Your task to perform on an android device: change notifications settings Image 0: 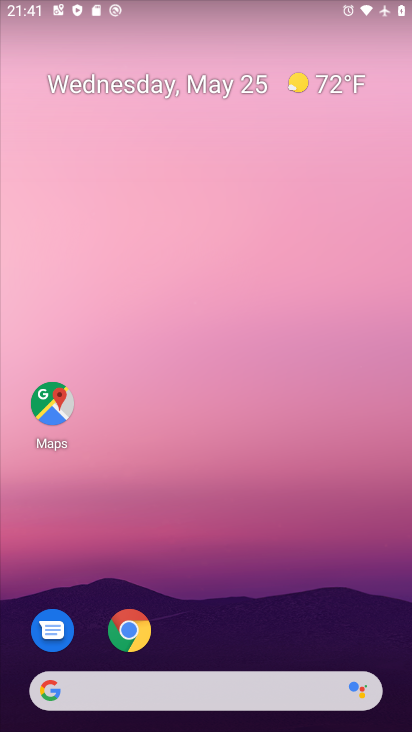
Step 0: drag from (224, 639) to (217, 270)
Your task to perform on an android device: change notifications settings Image 1: 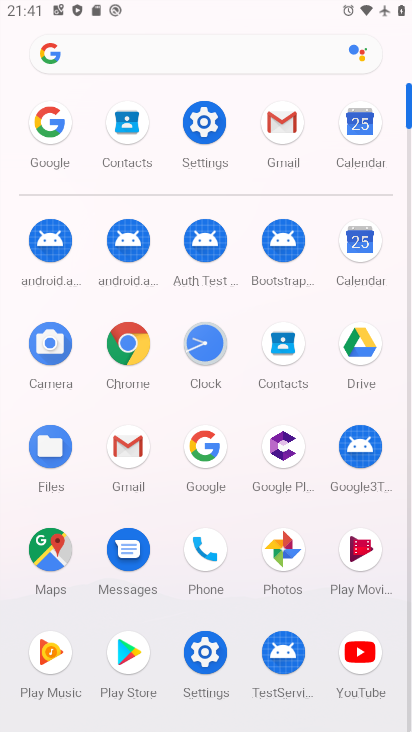
Step 1: click (204, 129)
Your task to perform on an android device: change notifications settings Image 2: 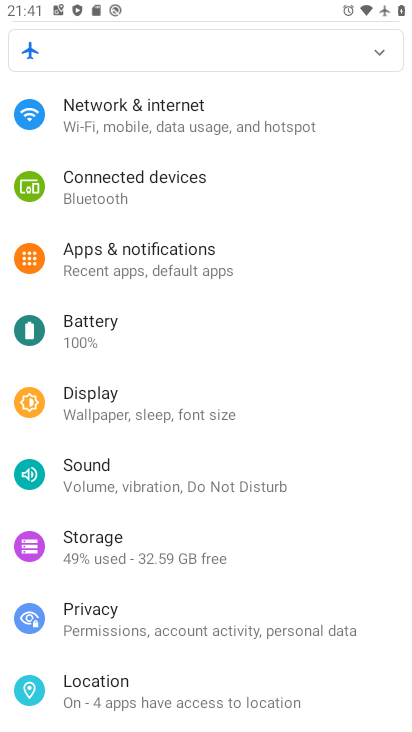
Step 2: click (193, 268)
Your task to perform on an android device: change notifications settings Image 3: 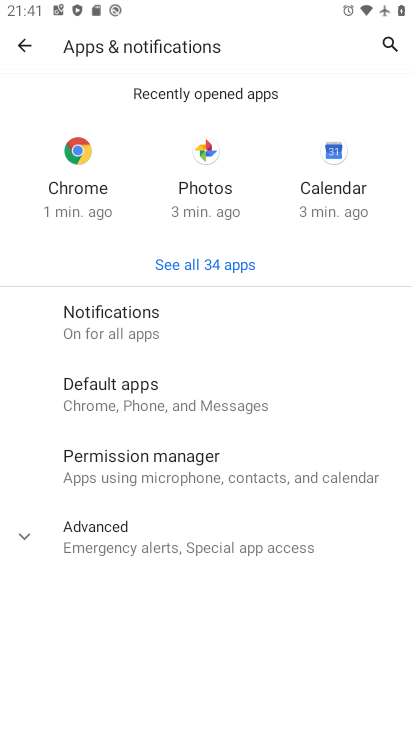
Step 3: click (174, 317)
Your task to perform on an android device: change notifications settings Image 4: 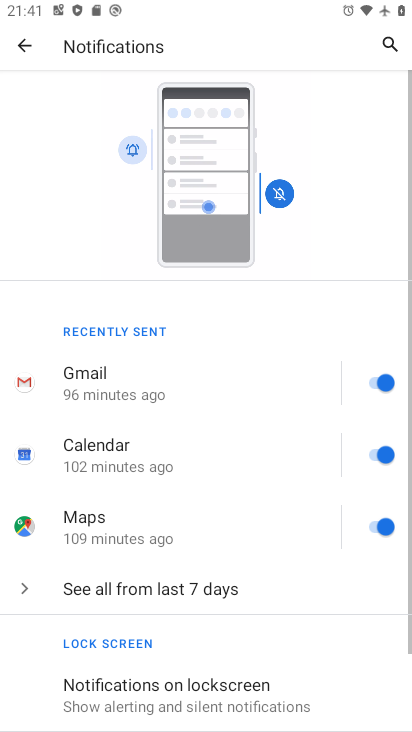
Step 4: drag from (217, 596) to (252, 256)
Your task to perform on an android device: change notifications settings Image 5: 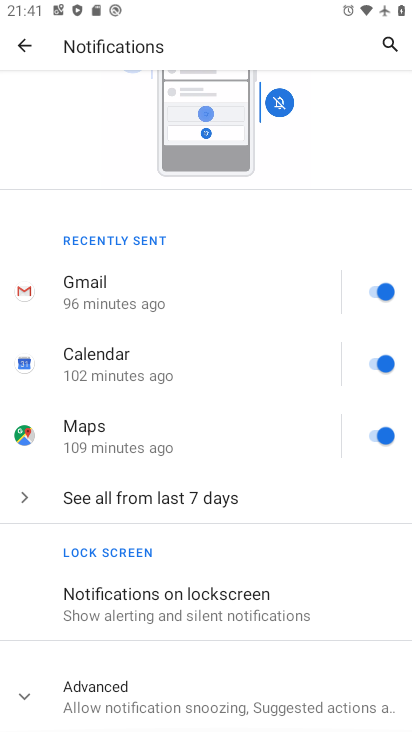
Step 5: click (234, 594)
Your task to perform on an android device: change notifications settings Image 6: 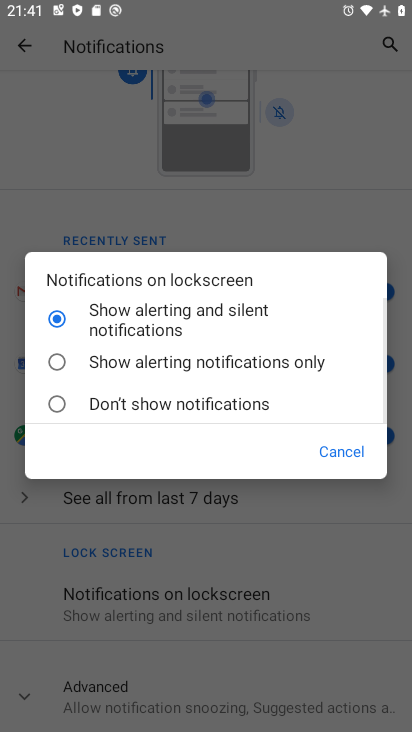
Step 6: click (152, 407)
Your task to perform on an android device: change notifications settings Image 7: 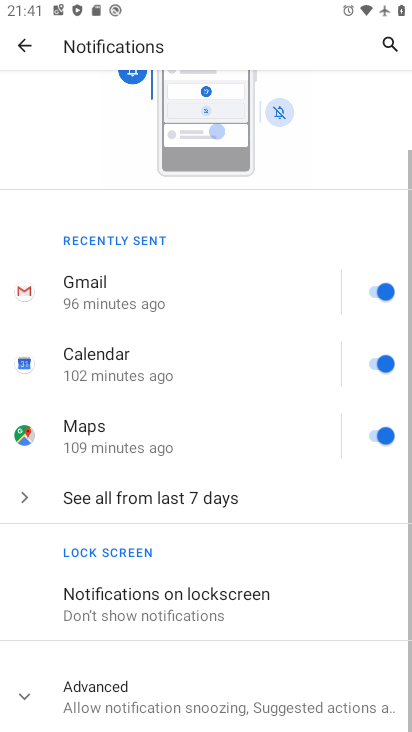
Step 7: task complete